Your task to perform on an android device: Open Google Chrome Image 0: 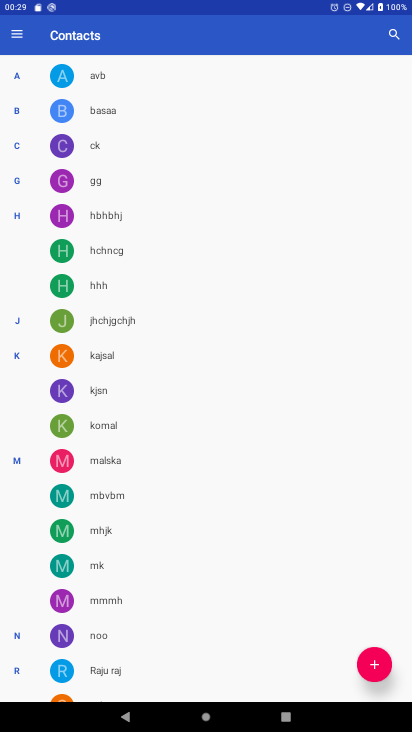
Step 0: press home button
Your task to perform on an android device: Open Google Chrome Image 1: 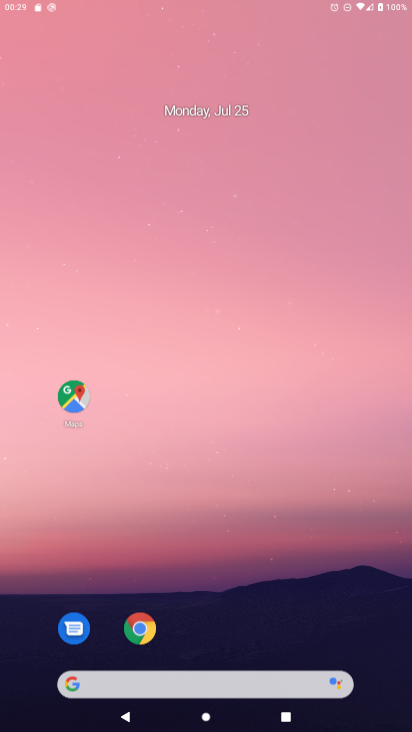
Step 1: drag from (205, 622) to (231, 244)
Your task to perform on an android device: Open Google Chrome Image 2: 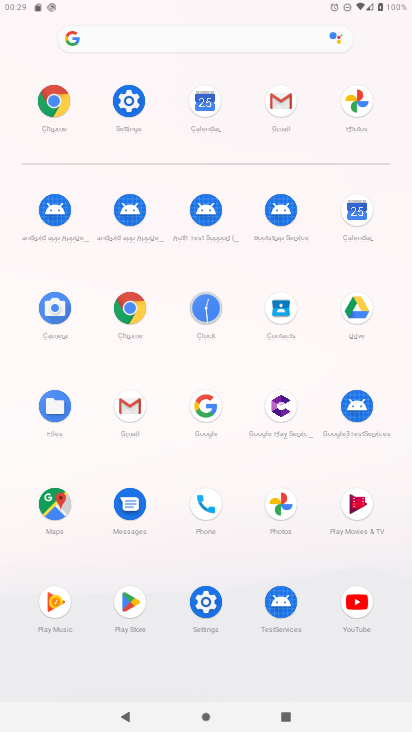
Step 2: click (128, 302)
Your task to perform on an android device: Open Google Chrome Image 3: 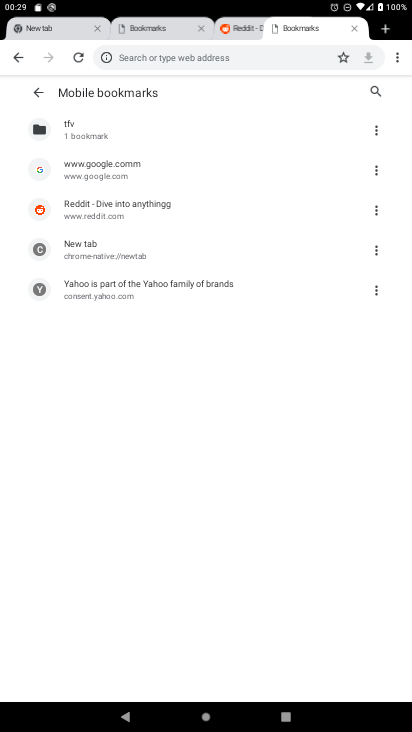
Step 3: task complete